Your task to perform on an android device: Do I have any events this weekend? Image 0: 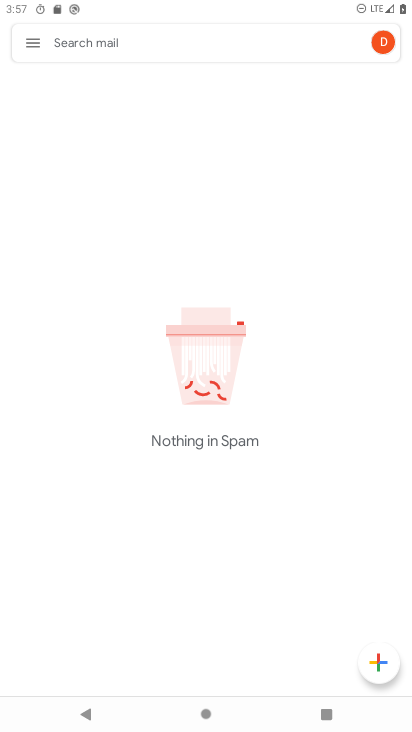
Step 0: press home button
Your task to perform on an android device: Do I have any events this weekend? Image 1: 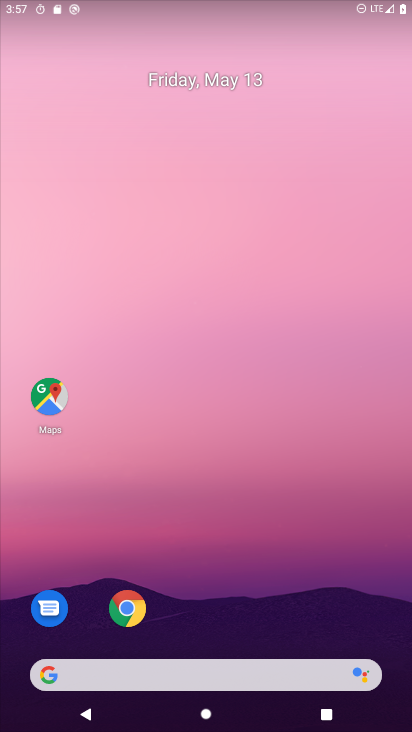
Step 1: drag from (225, 593) to (200, 49)
Your task to perform on an android device: Do I have any events this weekend? Image 2: 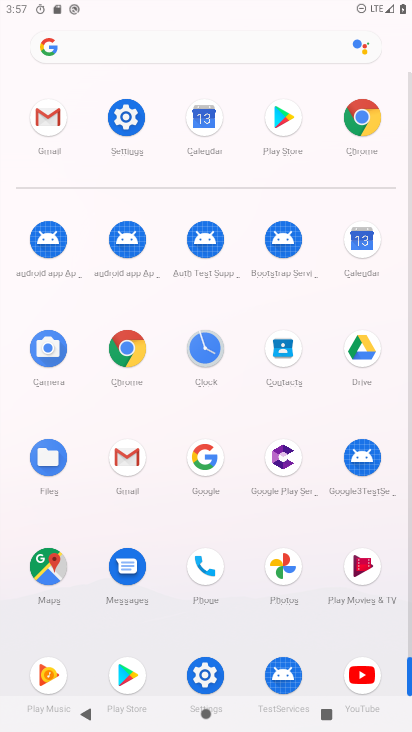
Step 2: click (363, 238)
Your task to perform on an android device: Do I have any events this weekend? Image 3: 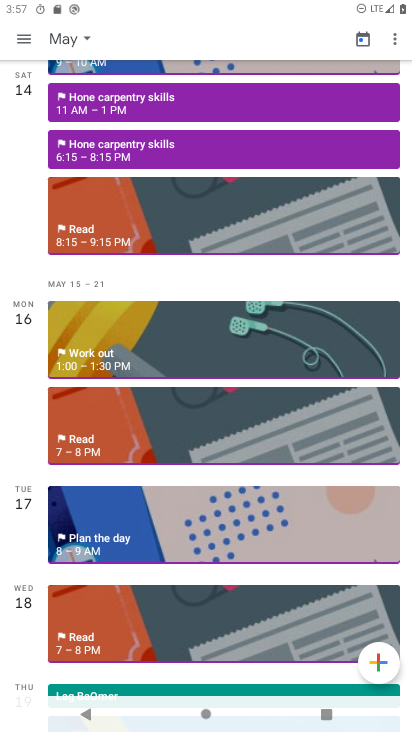
Step 3: task complete